Your task to perform on an android device: set the stopwatch Image 0: 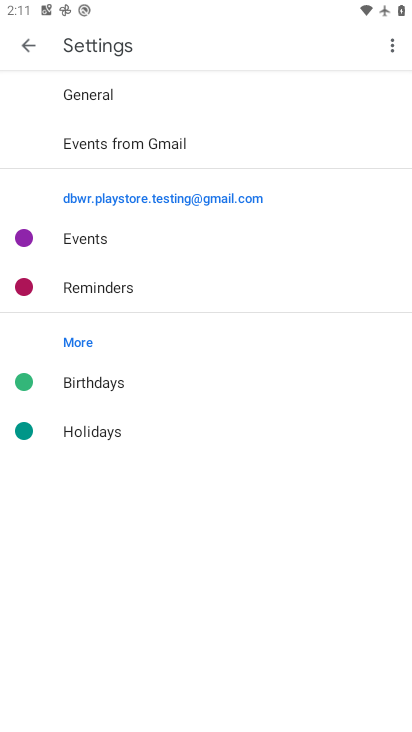
Step 0: press home button
Your task to perform on an android device: set the stopwatch Image 1: 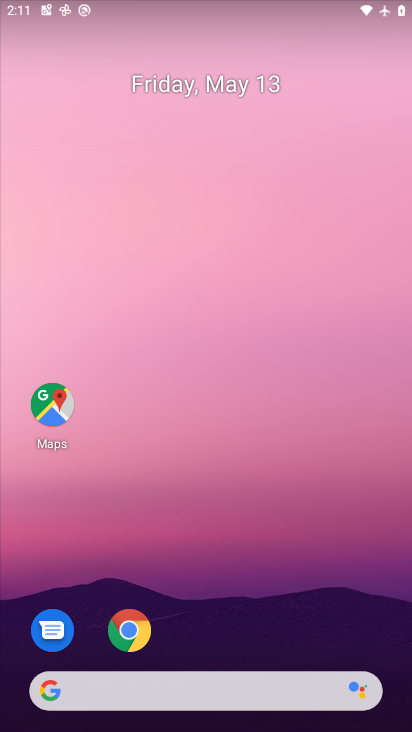
Step 1: drag from (221, 592) to (198, 269)
Your task to perform on an android device: set the stopwatch Image 2: 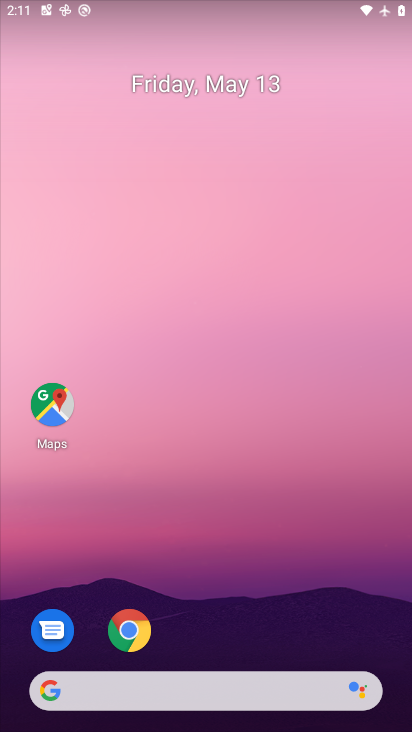
Step 2: drag from (248, 580) to (185, 175)
Your task to perform on an android device: set the stopwatch Image 3: 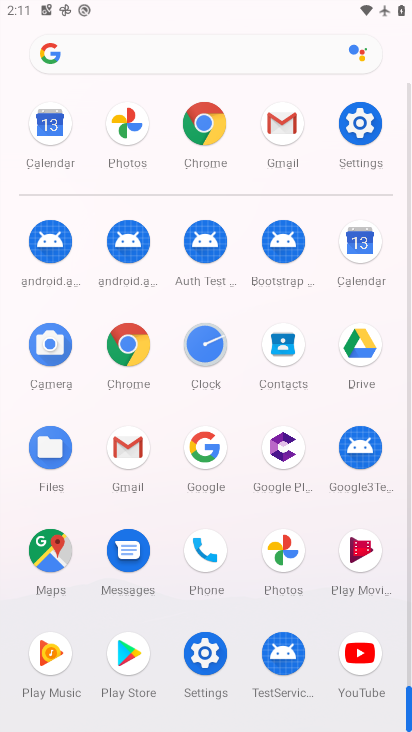
Step 3: click (207, 351)
Your task to perform on an android device: set the stopwatch Image 4: 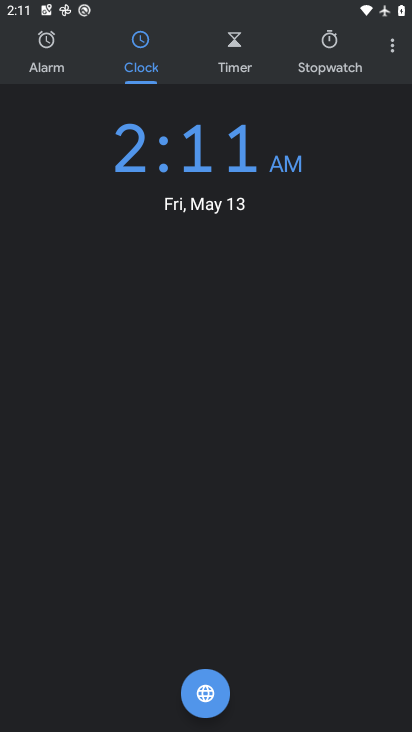
Step 4: click (315, 66)
Your task to perform on an android device: set the stopwatch Image 5: 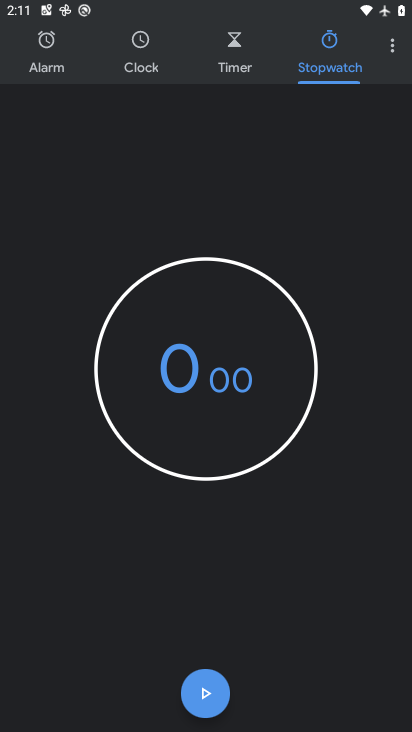
Step 5: click (205, 699)
Your task to perform on an android device: set the stopwatch Image 6: 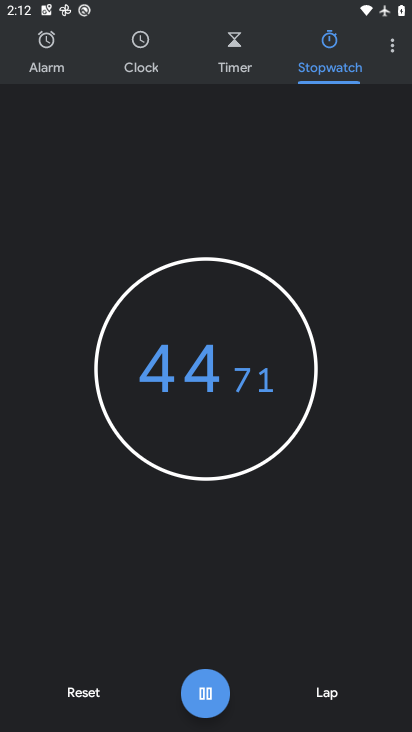
Step 6: task complete